Your task to perform on an android device: turn off wifi Image 0: 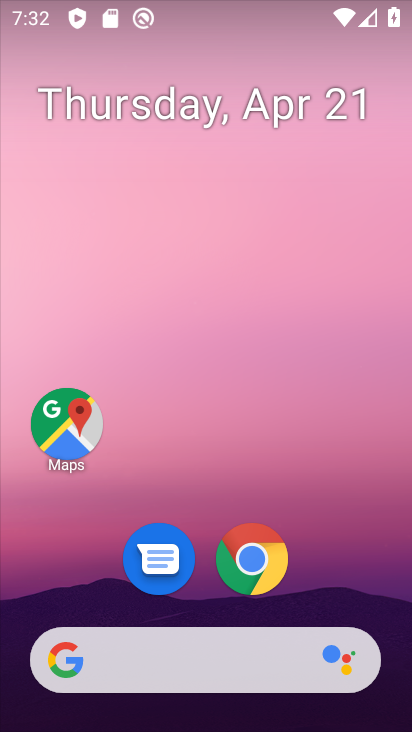
Step 0: drag from (361, 465) to (362, 71)
Your task to perform on an android device: turn off wifi Image 1: 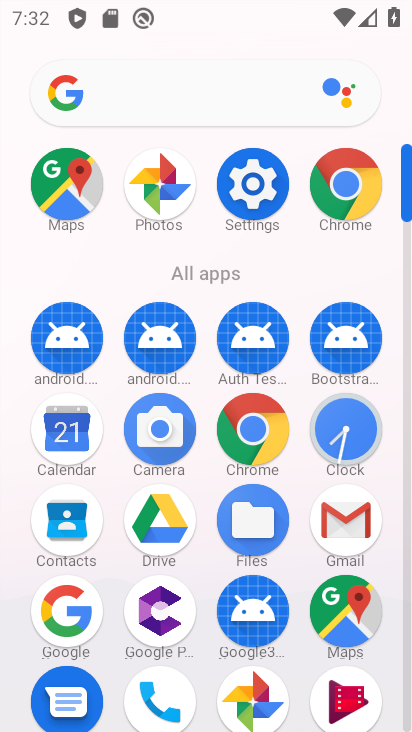
Step 1: click (267, 191)
Your task to perform on an android device: turn off wifi Image 2: 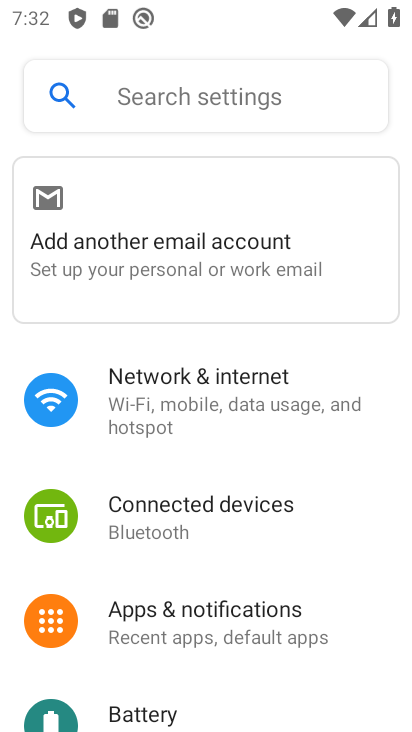
Step 2: click (255, 420)
Your task to perform on an android device: turn off wifi Image 3: 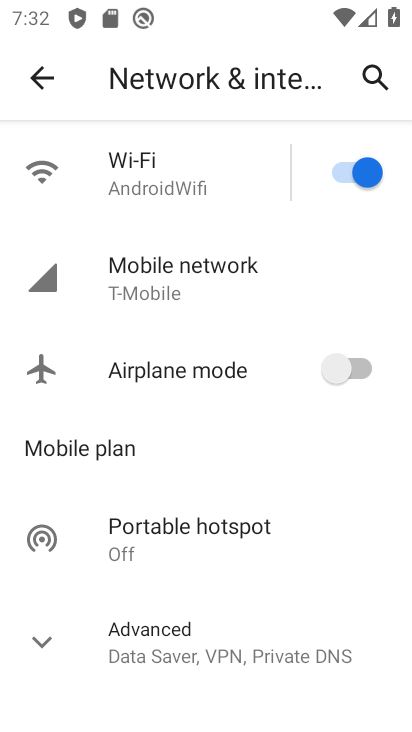
Step 3: click (347, 169)
Your task to perform on an android device: turn off wifi Image 4: 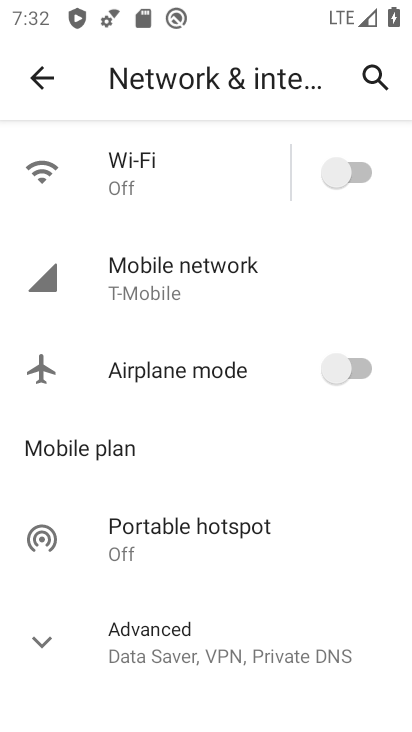
Step 4: task complete